Your task to perform on an android device: Open ESPN.com Image 0: 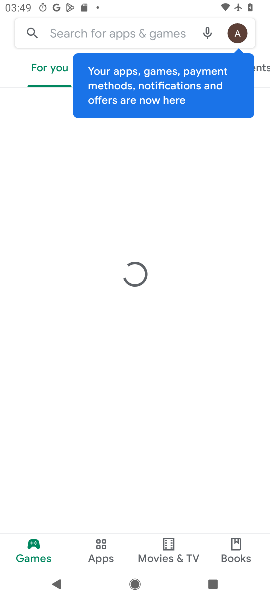
Step 0: press home button
Your task to perform on an android device: Open ESPN.com Image 1: 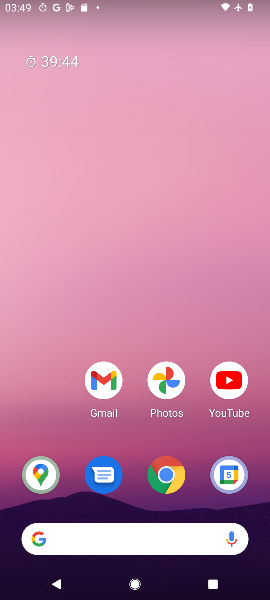
Step 1: drag from (62, 446) to (48, 217)
Your task to perform on an android device: Open ESPN.com Image 2: 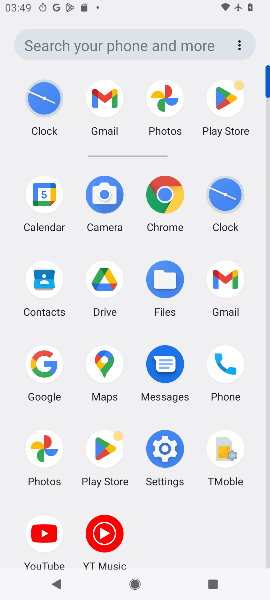
Step 2: click (167, 195)
Your task to perform on an android device: Open ESPN.com Image 3: 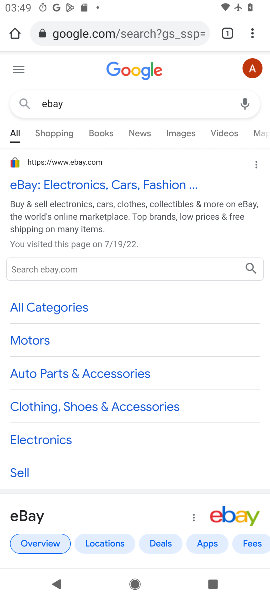
Step 3: click (176, 32)
Your task to perform on an android device: Open ESPN.com Image 4: 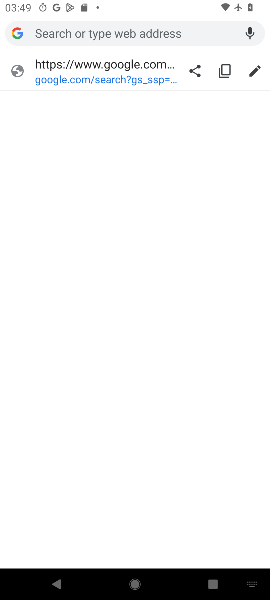
Step 4: type "espn.com"
Your task to perform on an android device: Open ESPN.com Image 5: 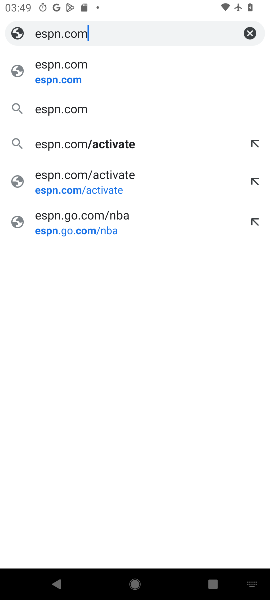
Step 5: click (78, 75)
Your task to perform on an android device: Open ESPN.com Image 6: 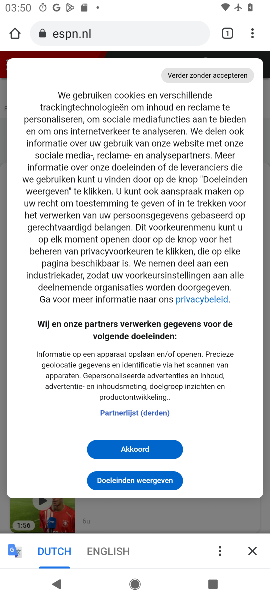
Step 6: task complete